Your task to perform on an android device: turn off smart reply in the gmail app Image 0: 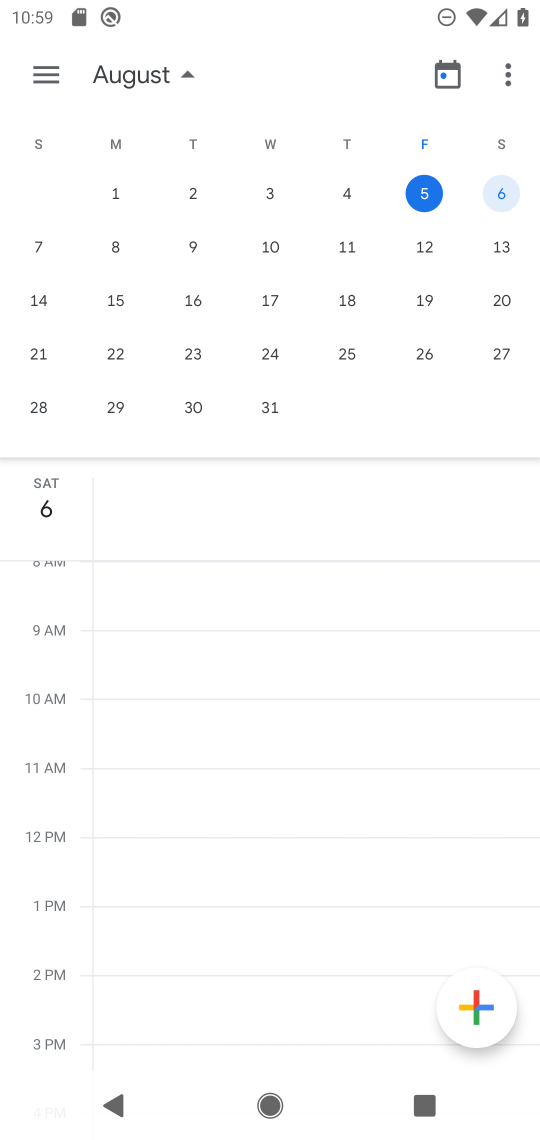
Step 0: press home button
Your task to perform on an android device: turn off smart reply in the gmail app Image 1: 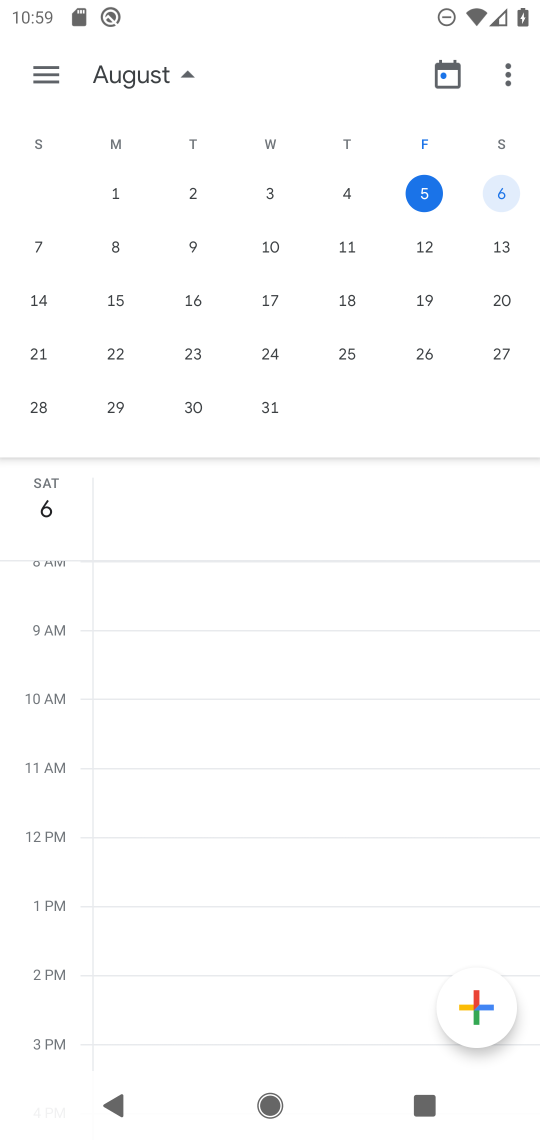
Step 1: press home button
Your task to perform on an android device: turn off smart reply in the gmail app Image 2: 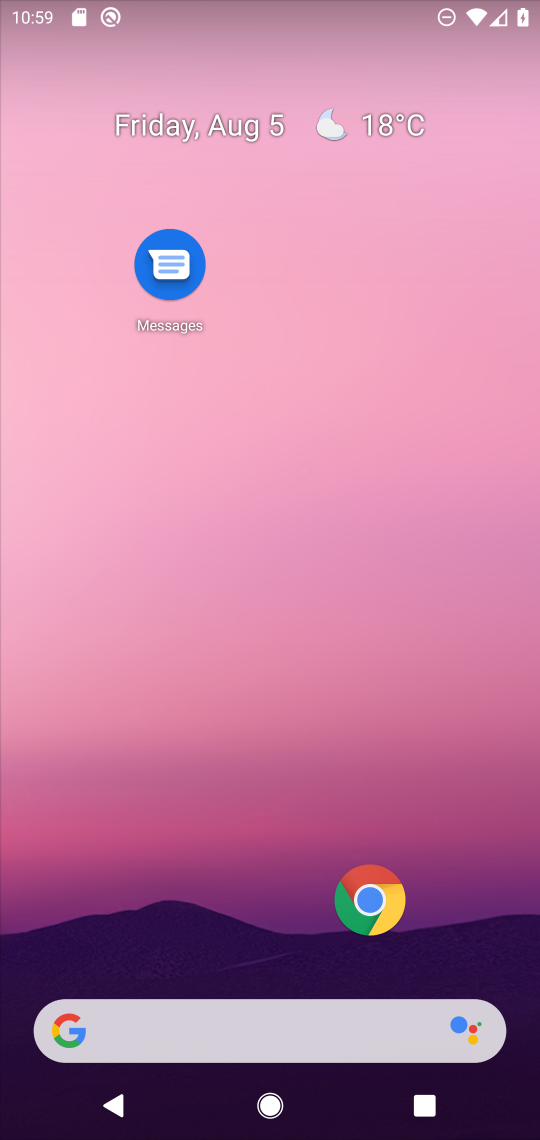
Step 2: drag from (140, 767) to (305, 41)
Your task to perform on an android device: turn off smart reply in the gmail app Image 3: 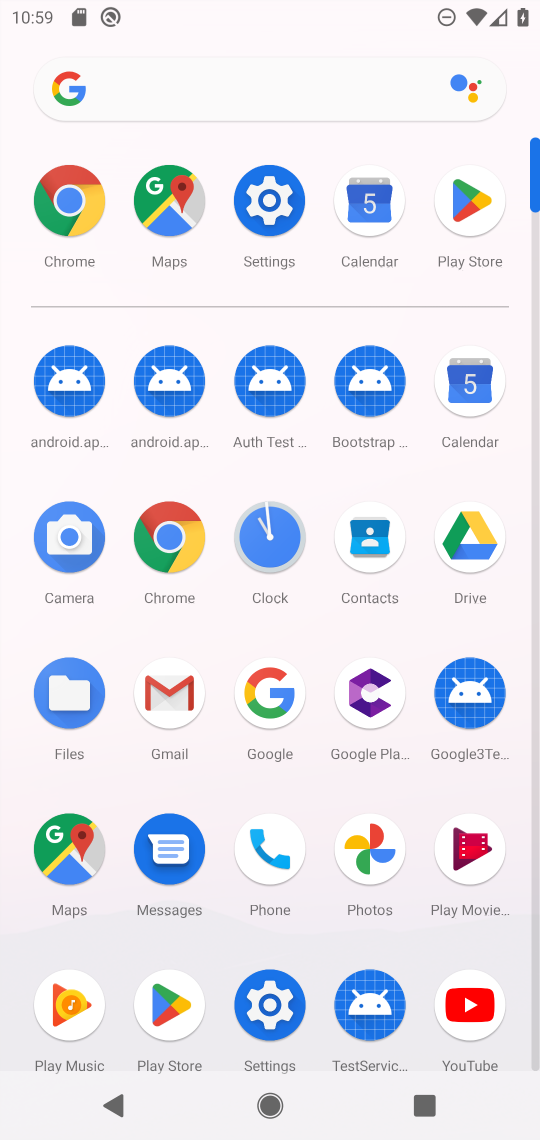
Step 3: click (140, 694)
Your task to perform on an android device: turn off smart reply in the gmail app Image 4: 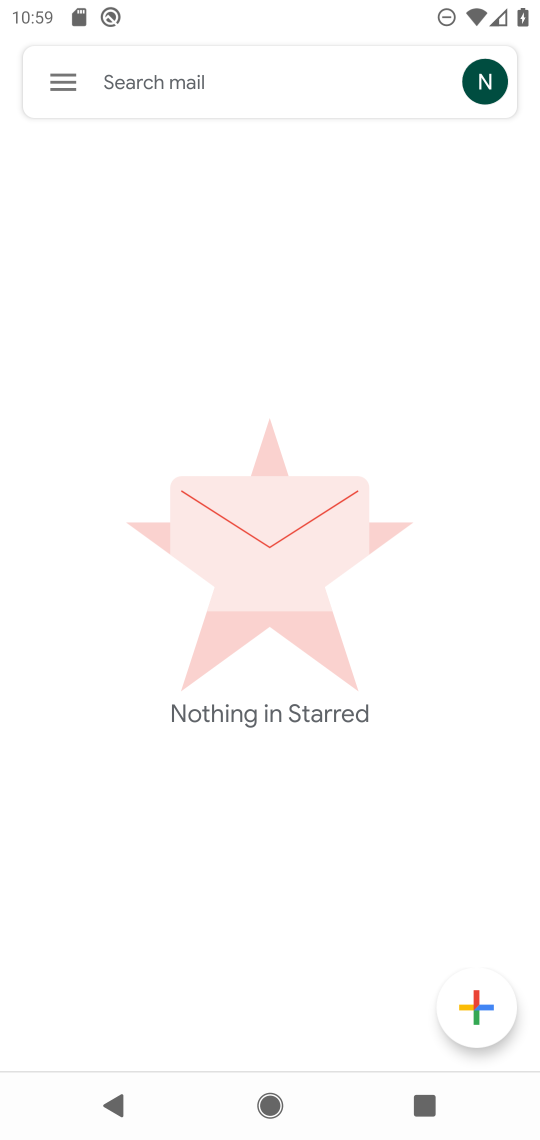
Step 4: click (69, 95)
Your task to perform on an android device: turn off smart reply in the gmail app Image 5: 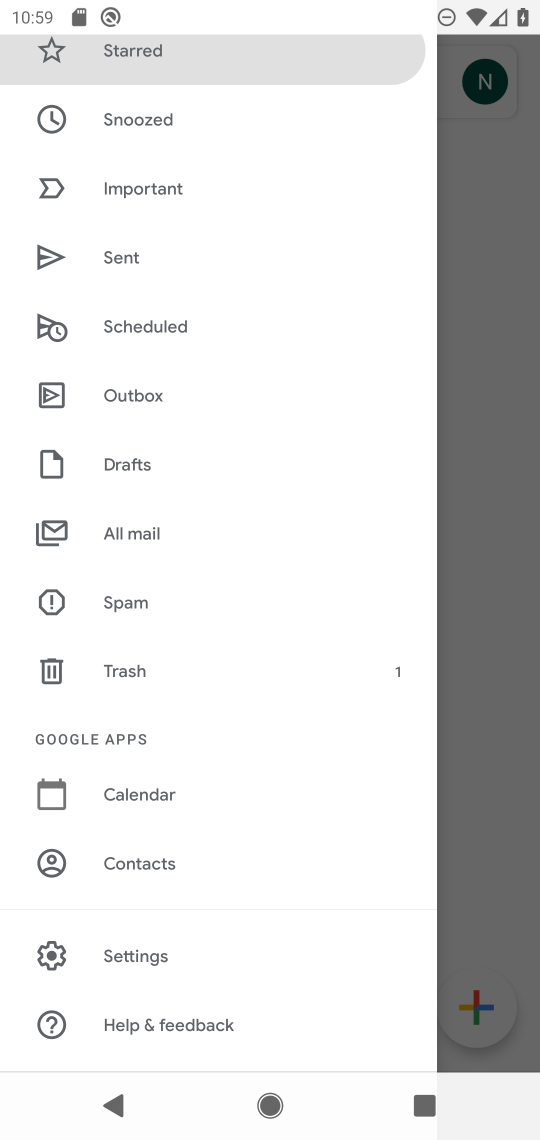
Step 5: click (107, 939)
Your task to perform on an android device: turn off smart reply in the gmail app Image 6: 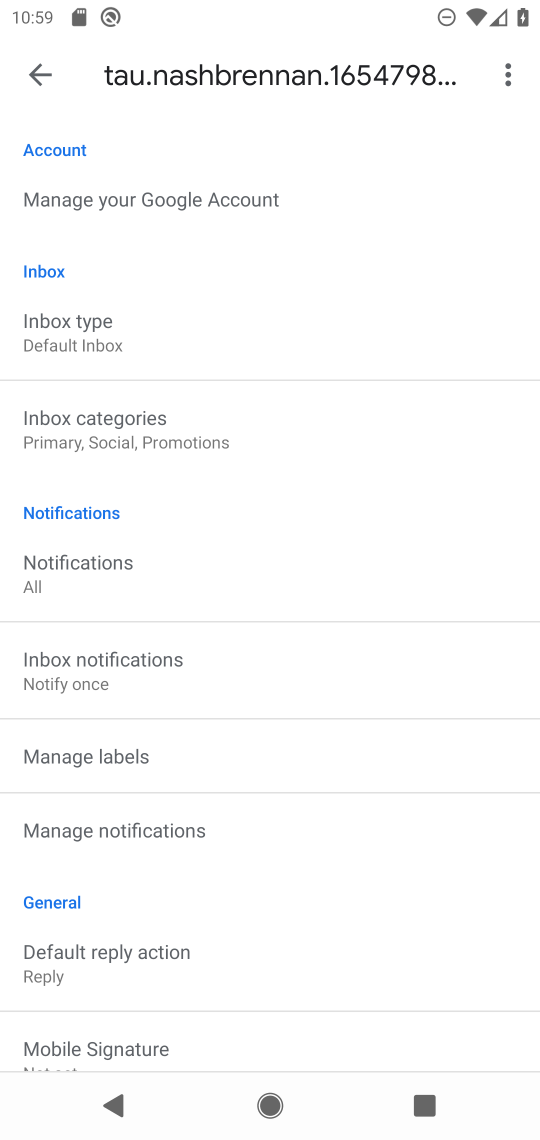
Step 6: drag from (114, 883) to (135, 1090)
Your task to perform on an android device: turn off smart reply in the gmail app Image 7: 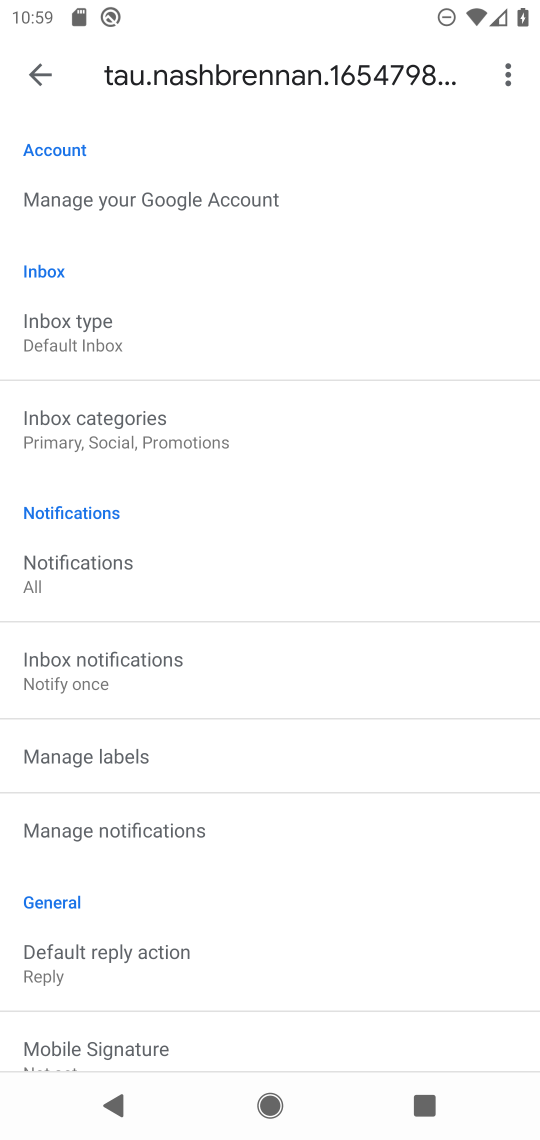
Step 7: drag from (187, 843) to (203, 14)
Your task to perform on an android device: turn off smart reply in the gmail app Image 8: 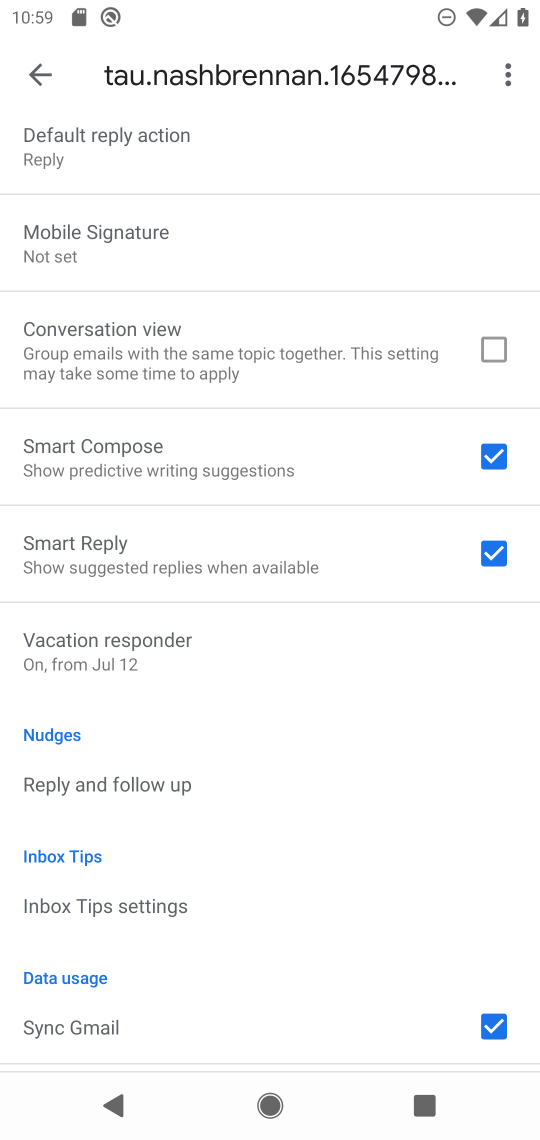
Step 8: click (345, 559)
Your task to perform on an android device: turn off smart reply in the gmail app Image 9: 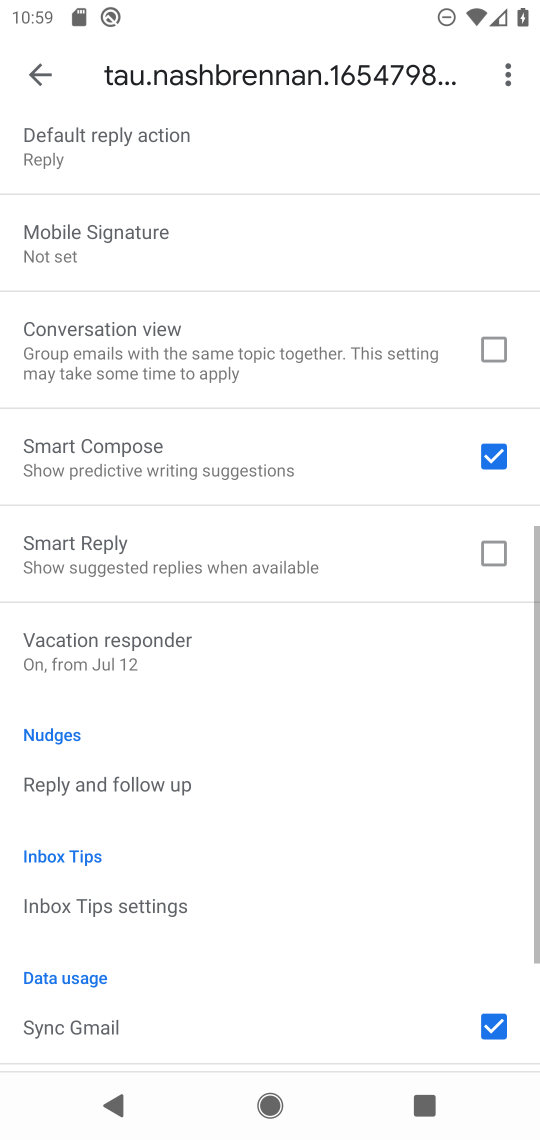
Step 9: task complete